Your task to perform on an android device: open app "Indeed Job Search" (install if not already installed) Image 0: 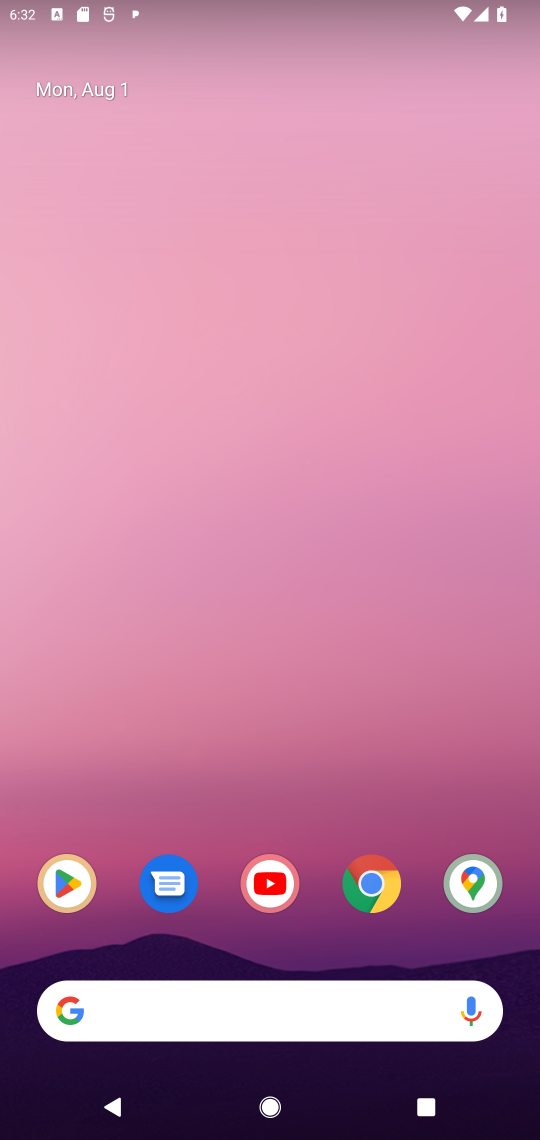
Step 0: click (56, 880)
Your task to perform on an android device: open app "Indeed Job Search" (install if not already installed) Image 1: 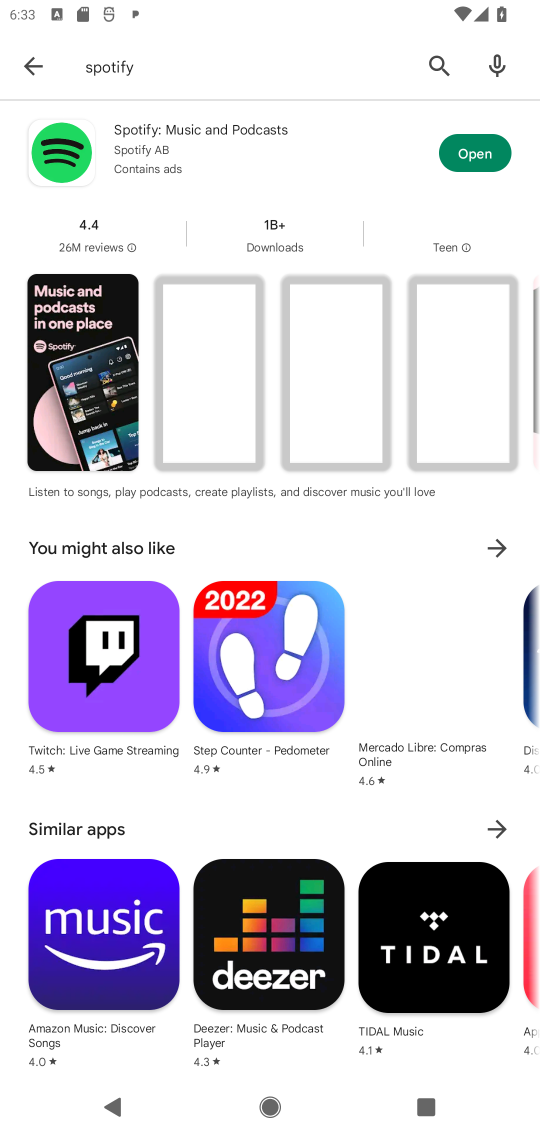
Step 1: click (34, 71)
Your task to perform on an android device: open app "Indeed Job Search" (install if not already installed) Image 2: 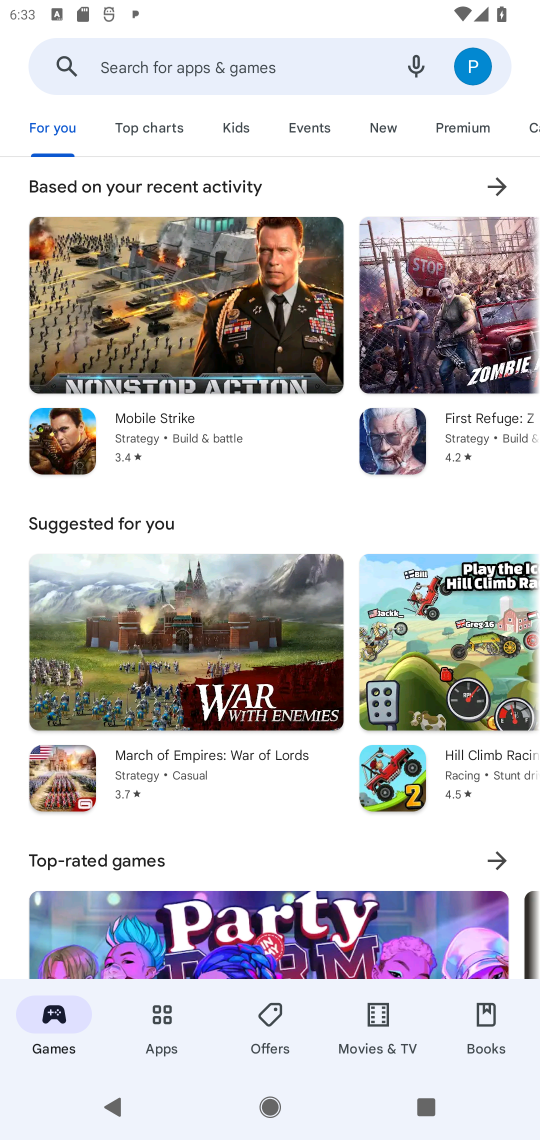
Step 2: click (211, 77)
Your task to perform on an android device: open app "Indeed Job Search" (install if not already installed) Image 3: 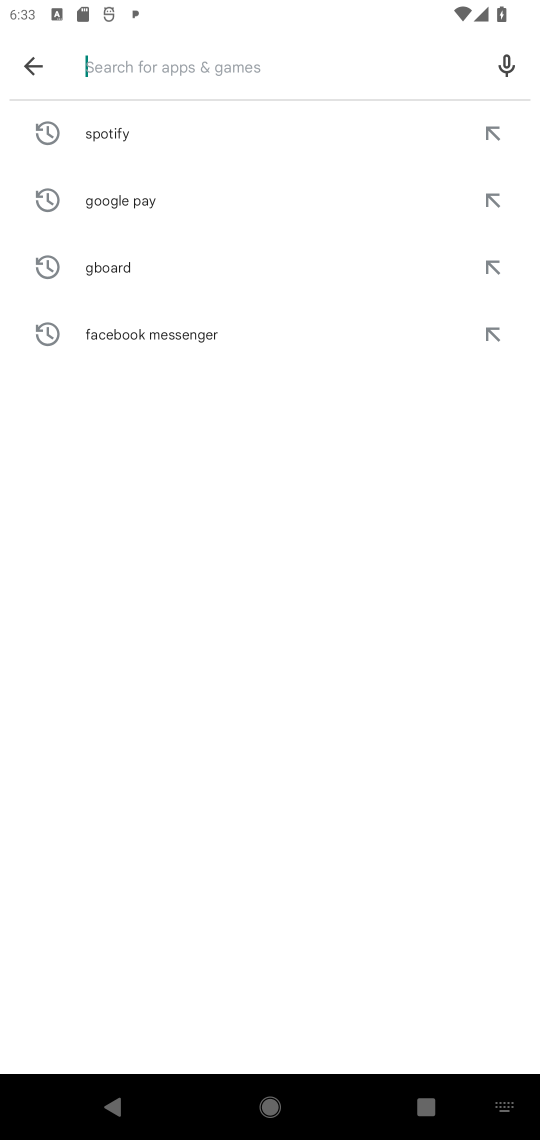
Step 3: type "Indeed Job Search"
Your task to perform on an android device: open app "Indeed Job Search" (install if not already installed) Image 4: 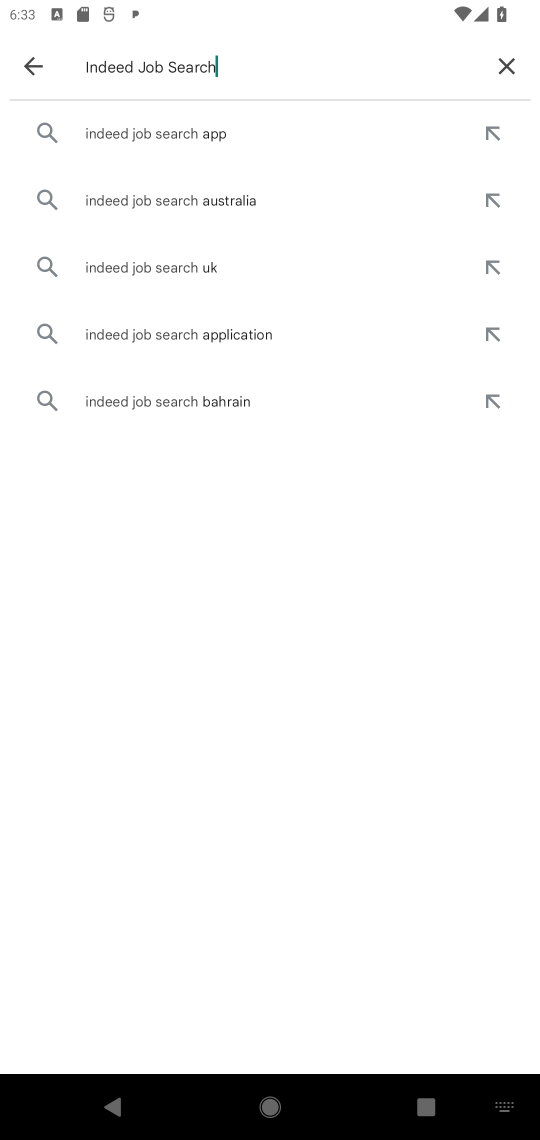
Step 4: click (168, 129)
Your task to perform on an android device: open app "Indeed Job Search" (install if not already installed) Image 5: 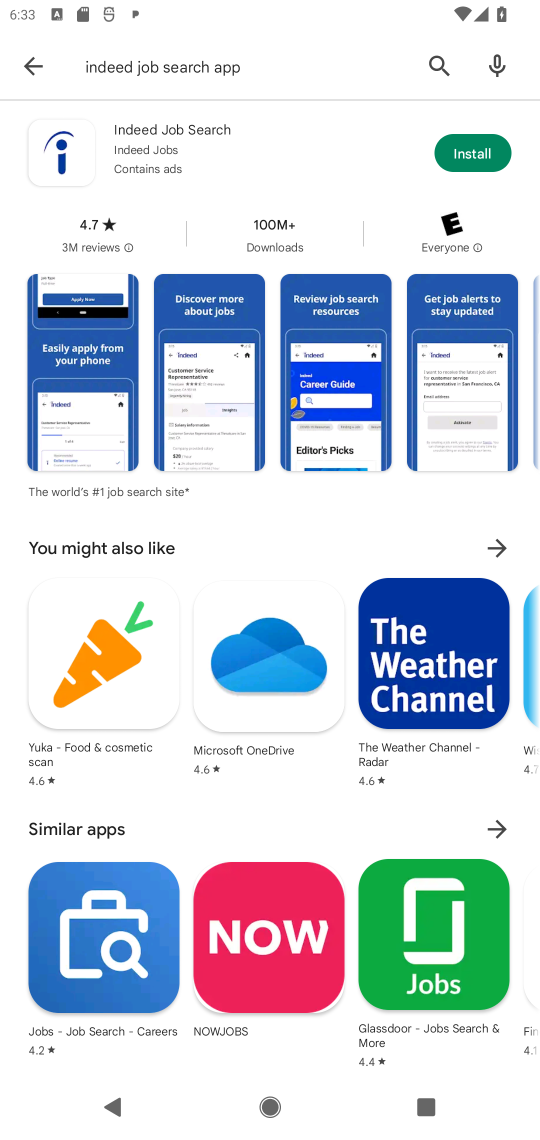
Step 5: click (464, 165)
Your task to perform on an android device: open app "Indeed Job Search" (install if not already installed) Image 6: 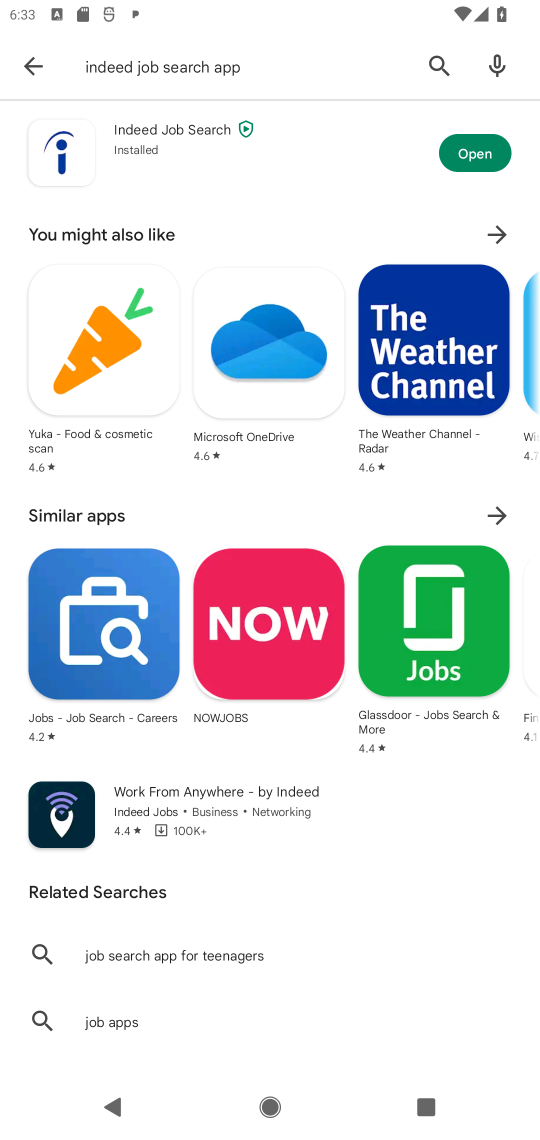
Step 6: click (446, 155)
Your task to perform on an android device: open app "Indeed Job Search" (install if not already installed) Image 7: 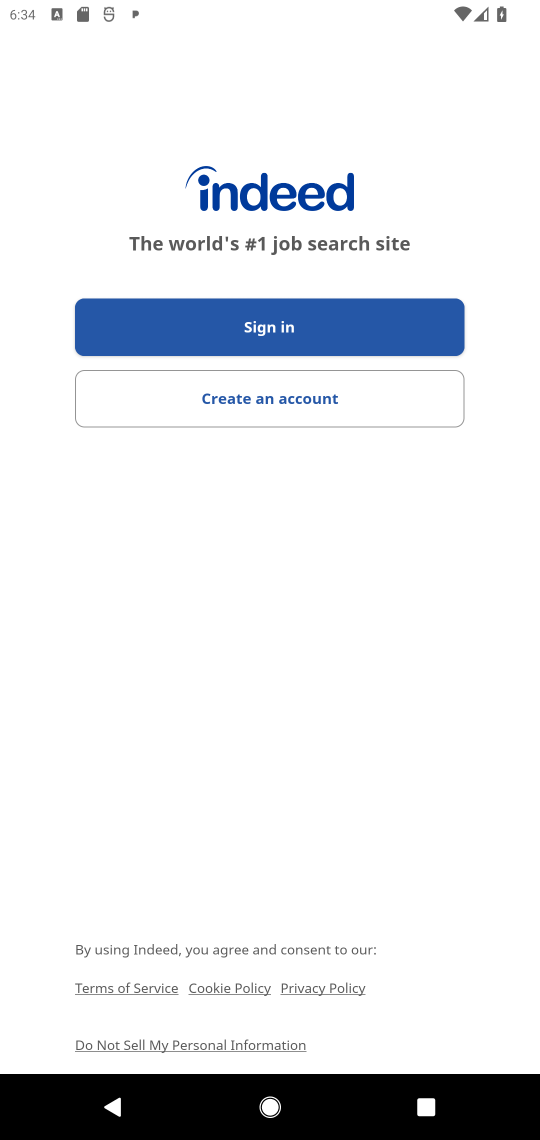
Step 7: task complete